Your task to perform on an android device: uninstall "DoorDash - Food Delivery" Image 0: 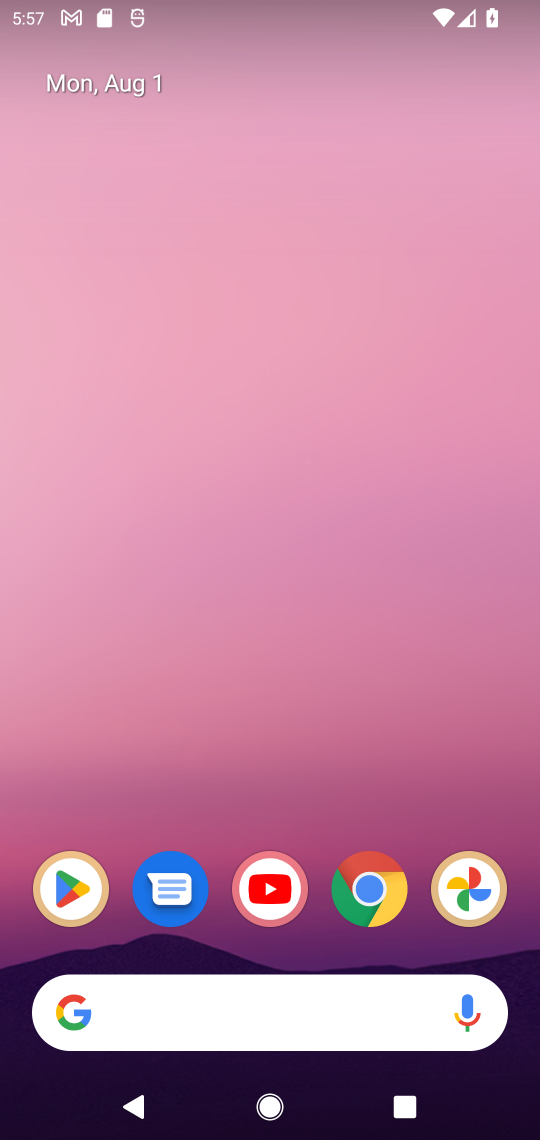
Step 0: click (117, 190)
Your task to perform on an android device: uninstall "DoorDash - Food Delivery" Image 1: 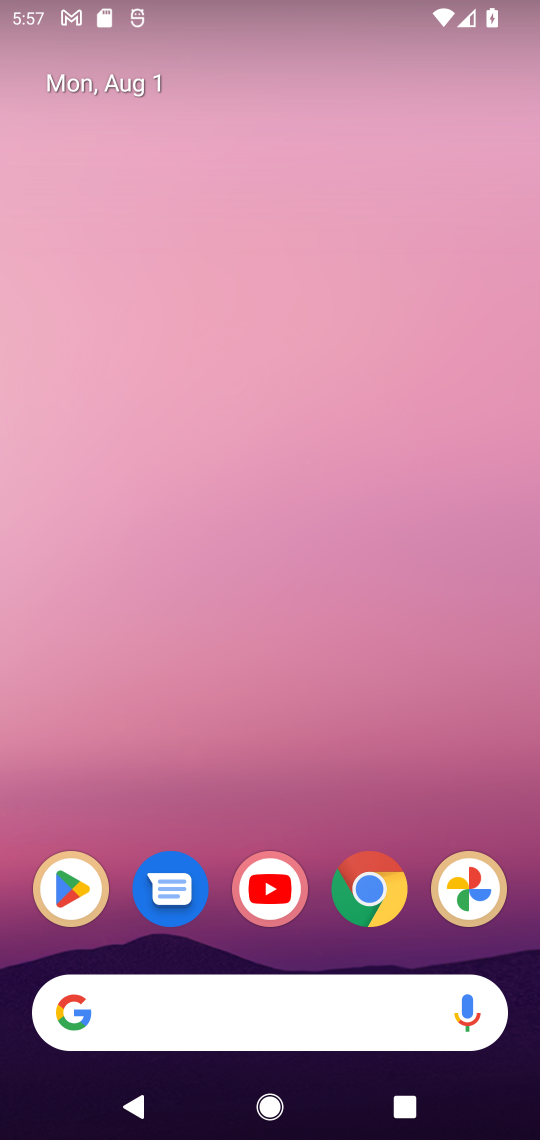
Step 1: click (287, 83)
Your task to perform on an android device: uninstall "DoorDash - Food Delivery" Image 2: 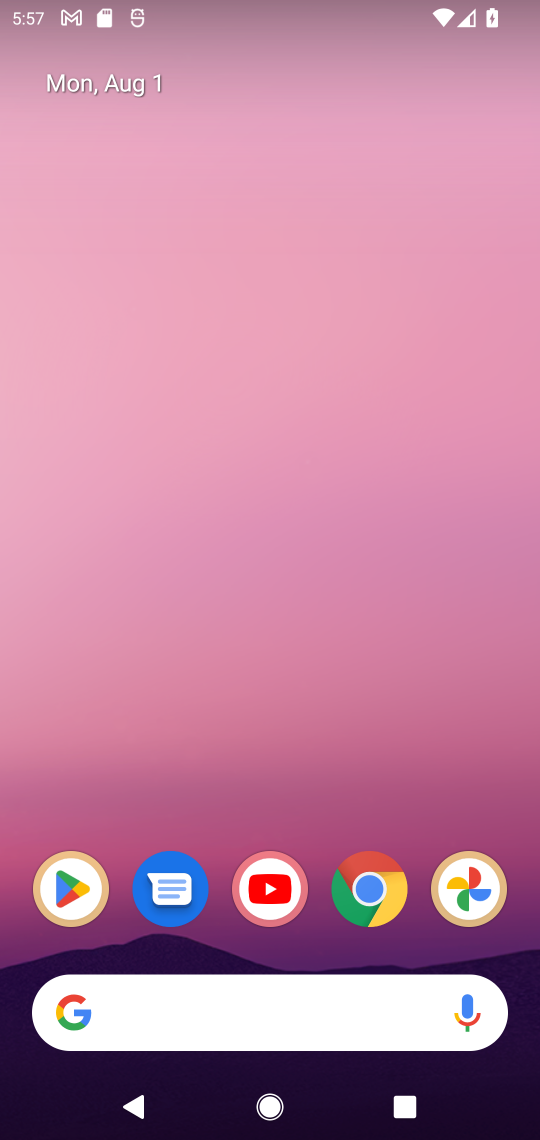
Step 2: drag from (450, 91) to (232, 109)
Your task to perform on an android device: uninstall "DoorDash - Food Delivery" Image 3: 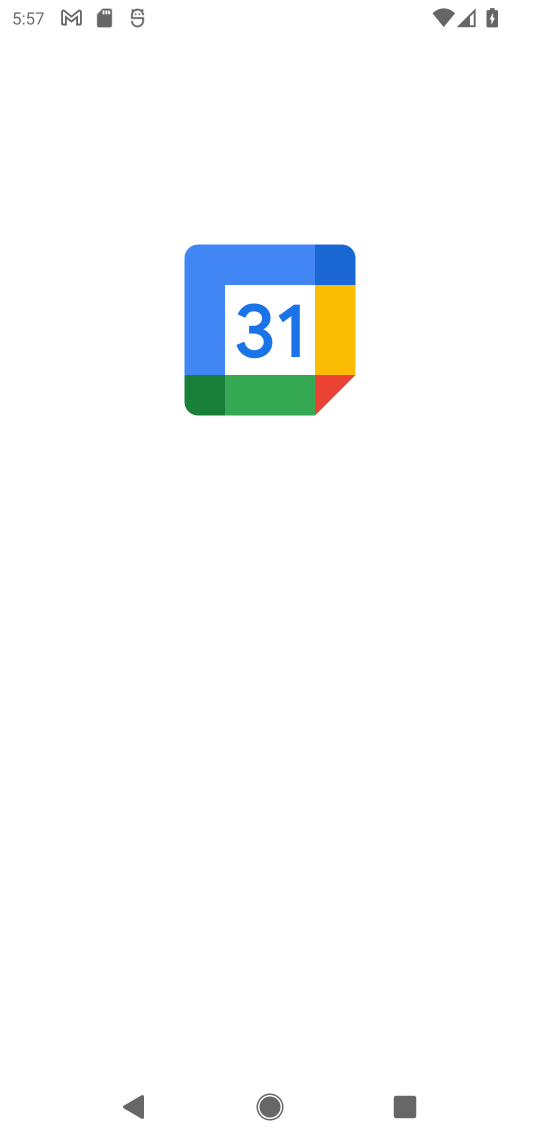
Step 3: drag from (292, 500) to (526, 385)
Your task to perform on an android device: uninstall "DoorDash - Food Delivery" Image 4: 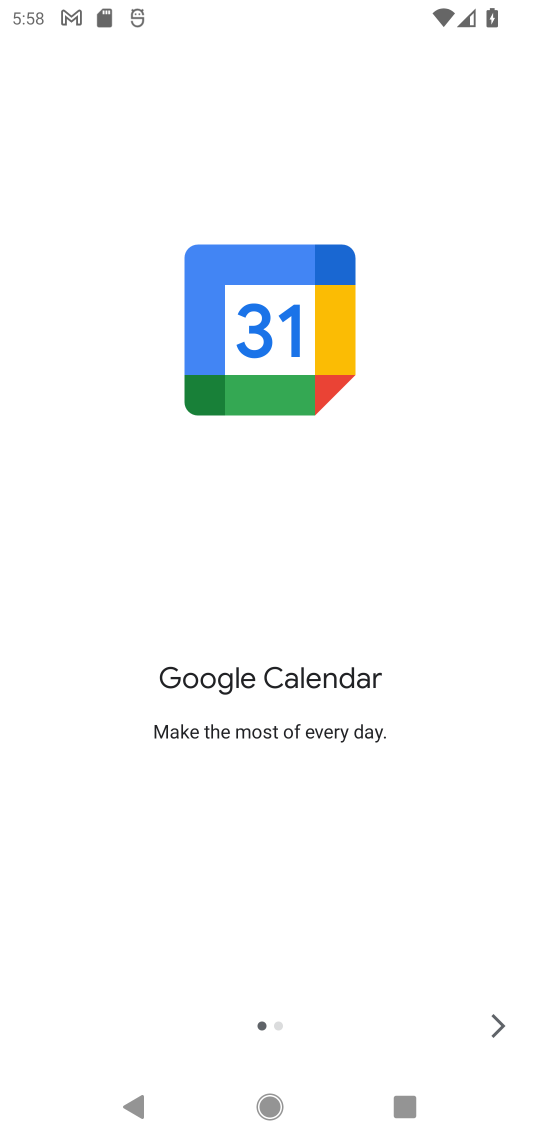
Step 4: press back button
Your task to perform on an android device: uninstall "DoorDash - Food Delivery" Image 5: 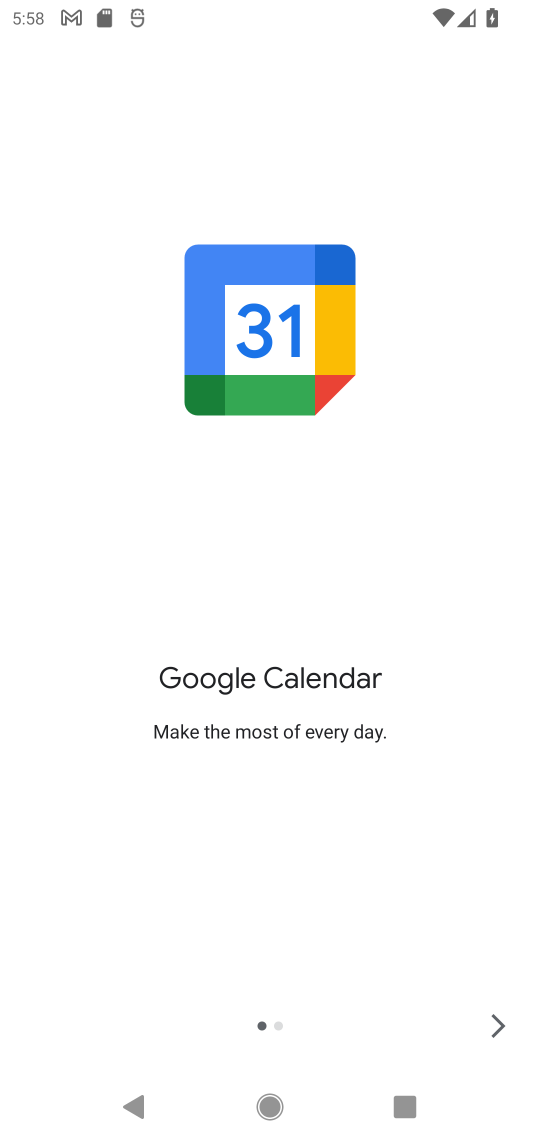
Step 5: press back button
Your task to perform on an android device: uninstall "DoorDash - Food Delivery" Image 6: 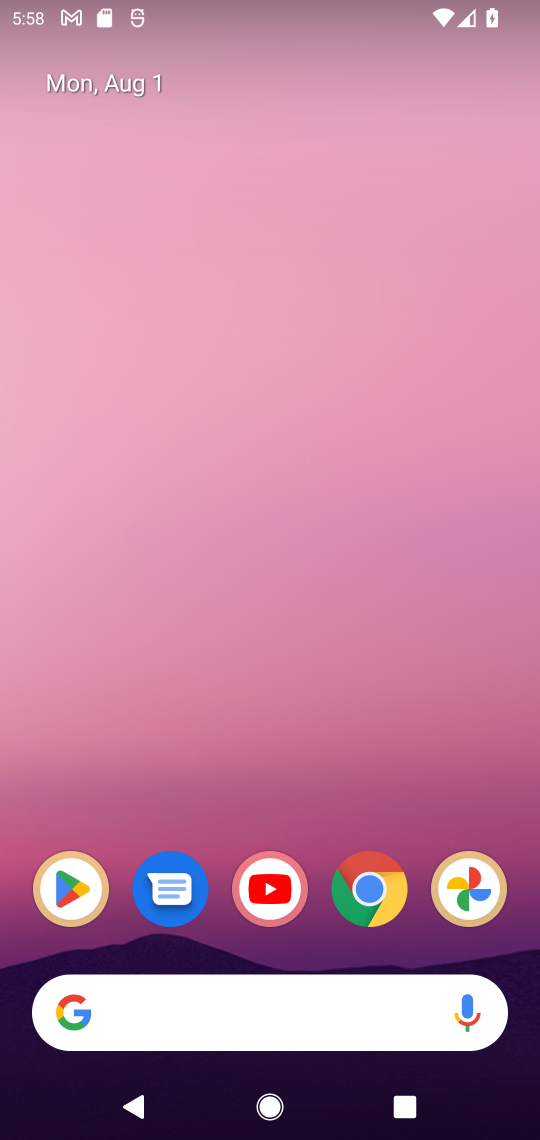
Step 6: click (508, 1026)
Your task to perform on an android device: uninstall "DoorDash - Food Delivery" Image 7: 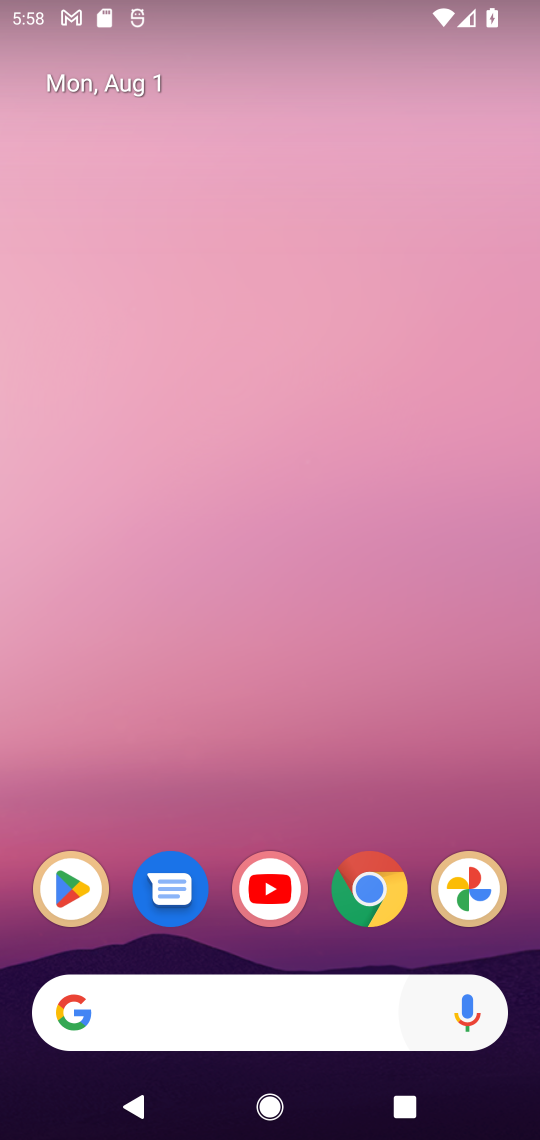
Step 7: click (336, 205)
Your task to perform on an android device: uninstall "DoorDash - Food Delivery" Image 8: 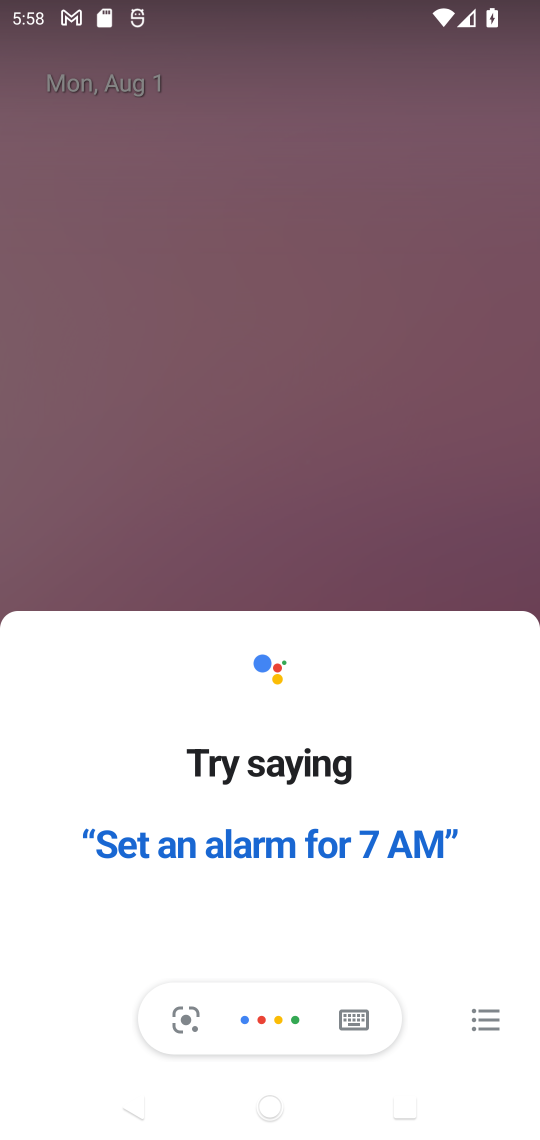
Step 8: drag from (296, 730) to (290, 189)
Your task to perform on an android device: uninstall "DoorDash - Food Delivery" Image 9: 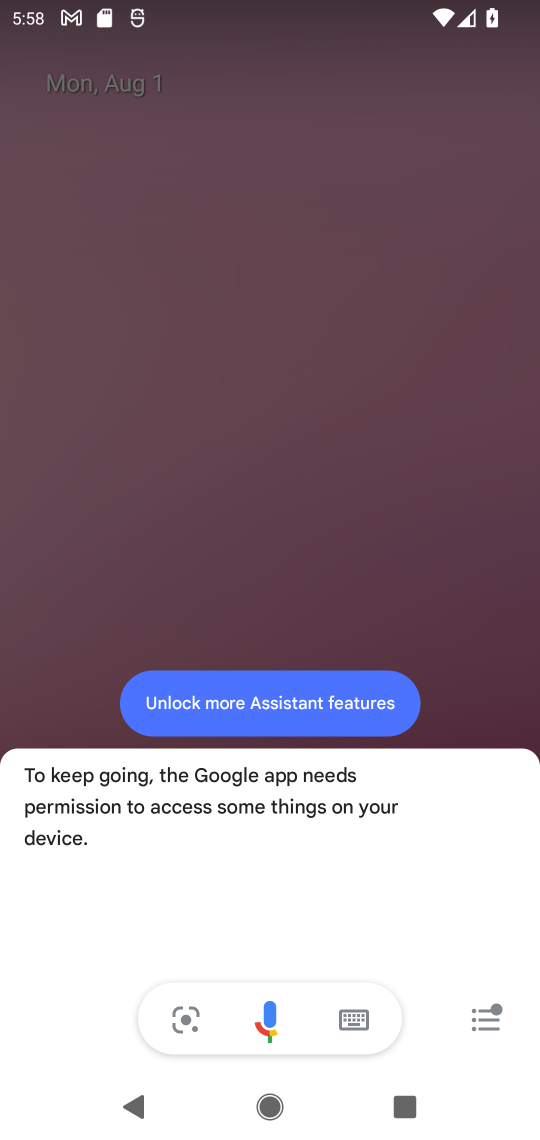
Step 9: drag from (298, 526) to (233, 77)
Your task to perform on an android device: uninstall "DoorDash - Food Delivery" Image 10: 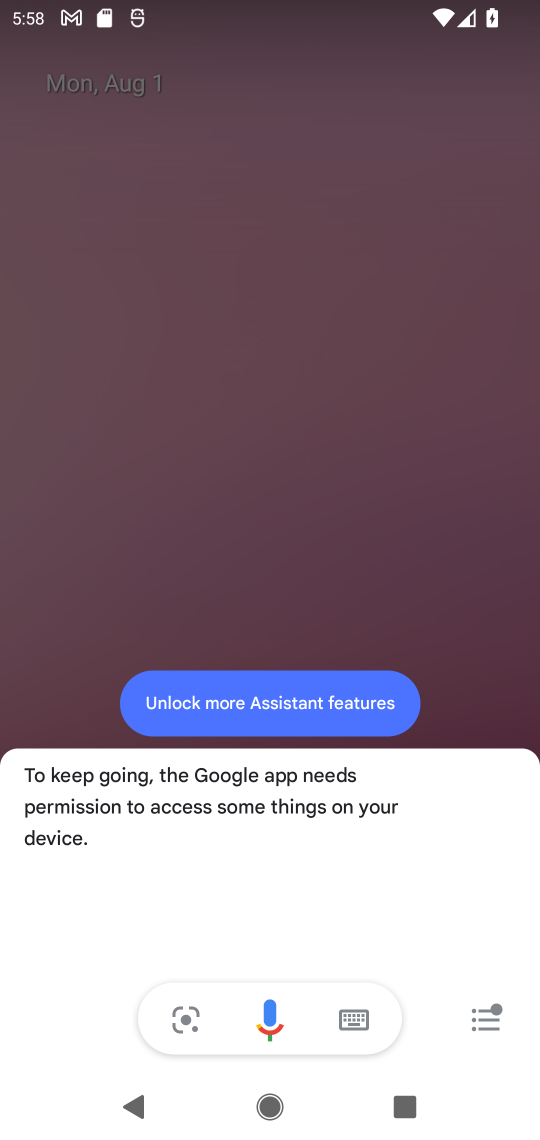
Step 10: drag from (360, 822) to (319, 250)
Your task to perform on an android device: uninstall "DoorDash - Food Delivery" Image 11: 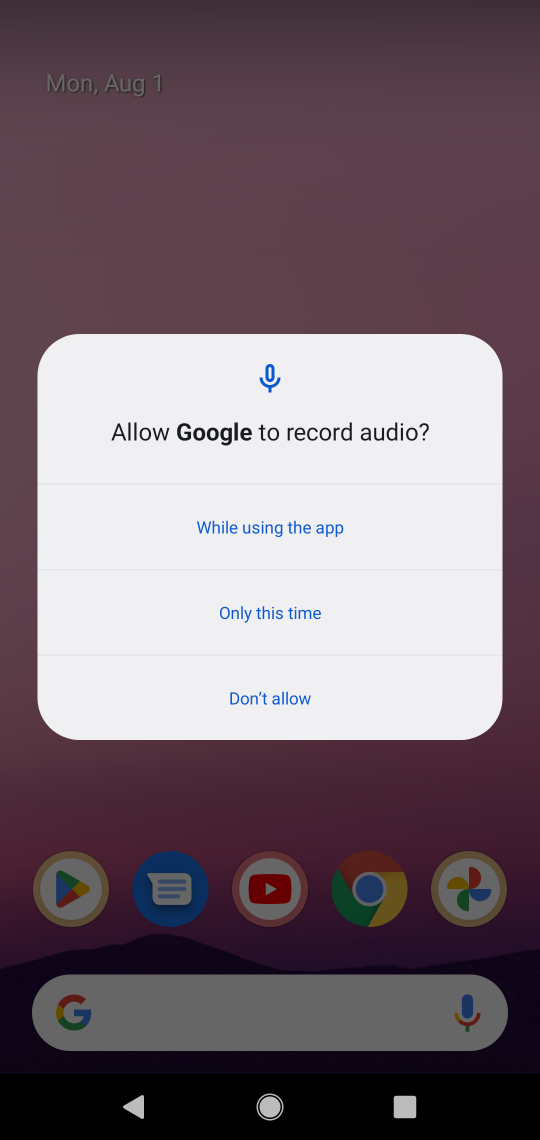
Step 11: drag from (294, 528) to (262, 307)
Your task to perform on an android device: uninstall "DoorDash - Food Delivery" Image 12: 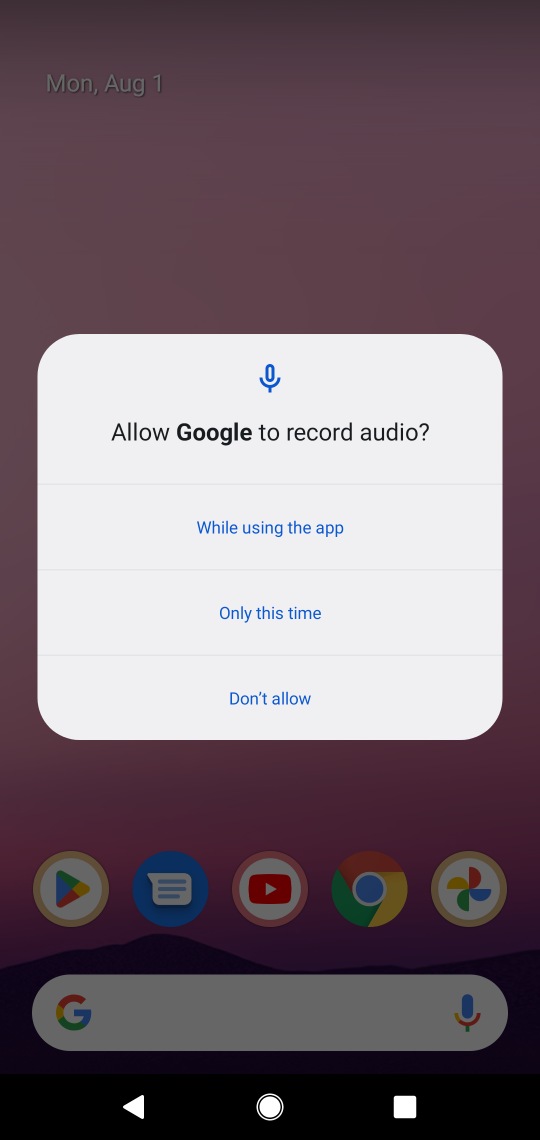
Step 12: drag from (255, 805) to (225, 410)
Your task to perform on an android device: uninstall "DoorDash - Food Delivery" Image 13: 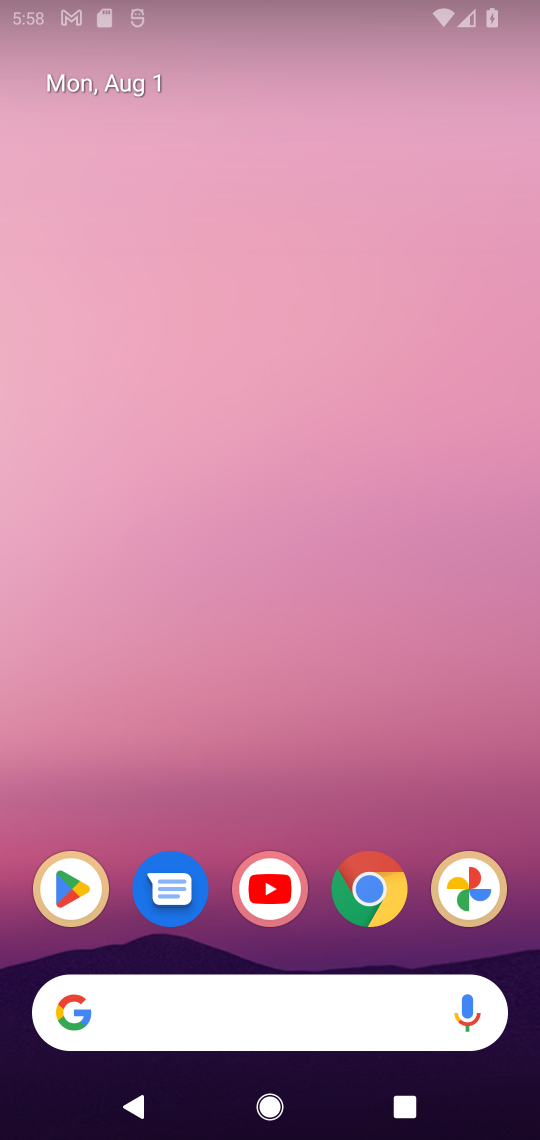
Step 13: click (337, 234)
Your task to perform on an android device: uninstall "DoorDash - Food Delivery" Image 14: 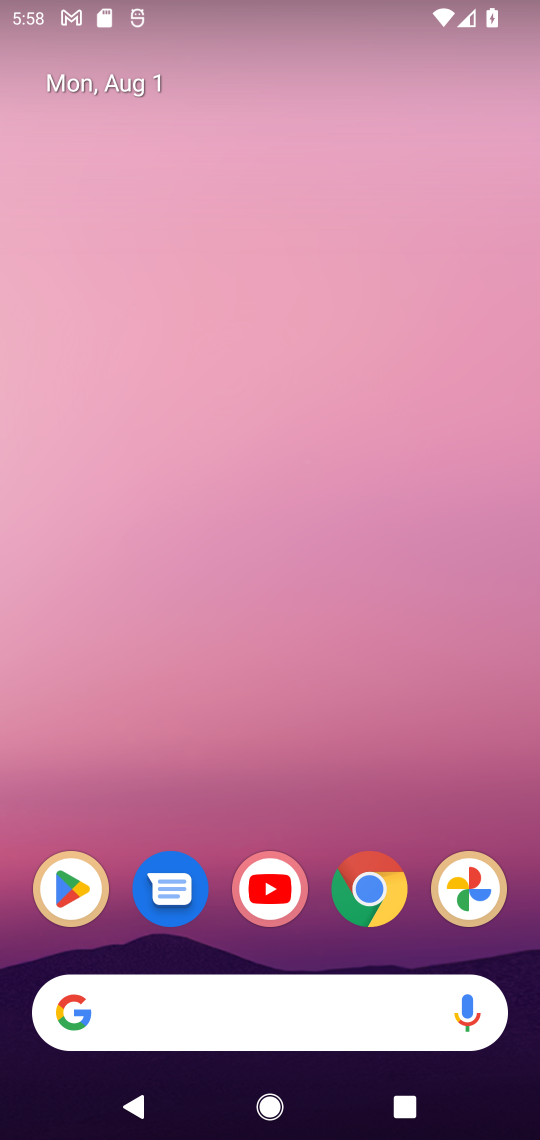
Step 14: drag from (317, 551) to (317, 178)
Your task to perform on an android device: uninstall "DoorDash - Food Delivery" Image 15: 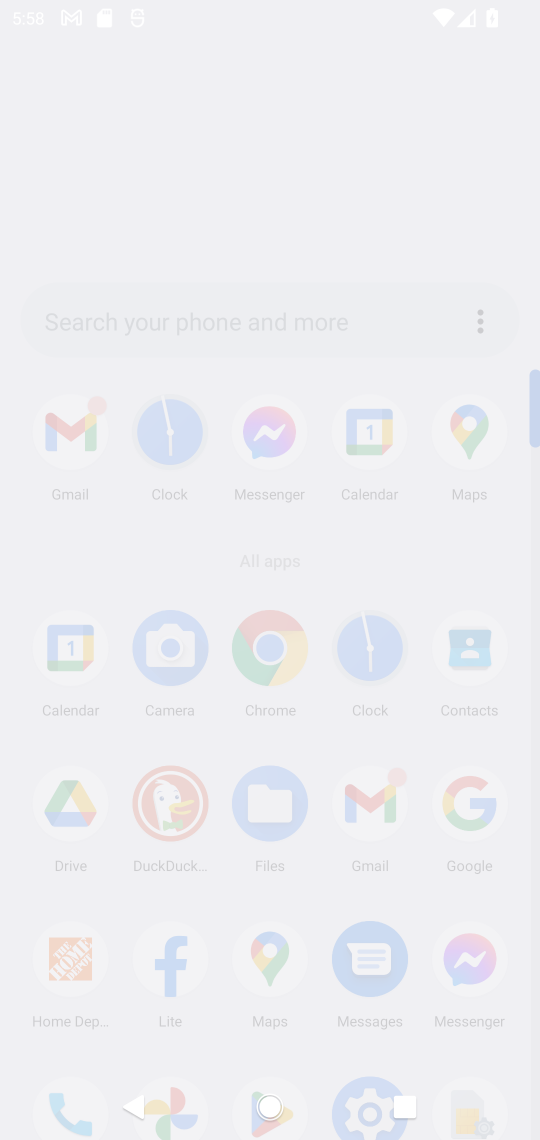
Step 15: click (331, 228)
Your task to perform on an android device: uninstall "DoorDash - Food Delivery" Image 16: 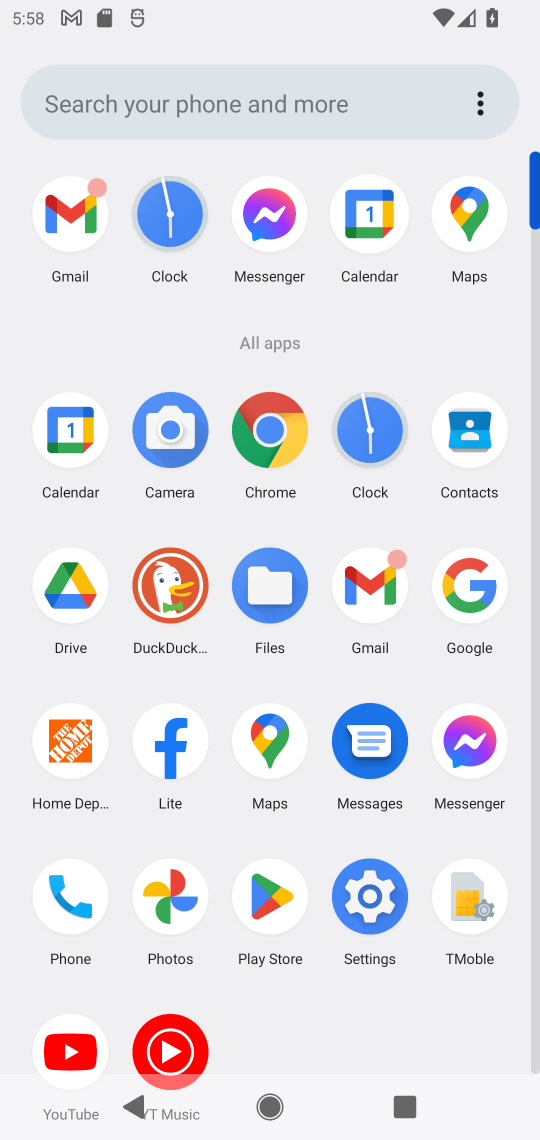
Step 16: drag from (393, 583) to (393, 375)
Your task to perform on an android device: uninstall "DoorDash - Food Delivery" Image 17: 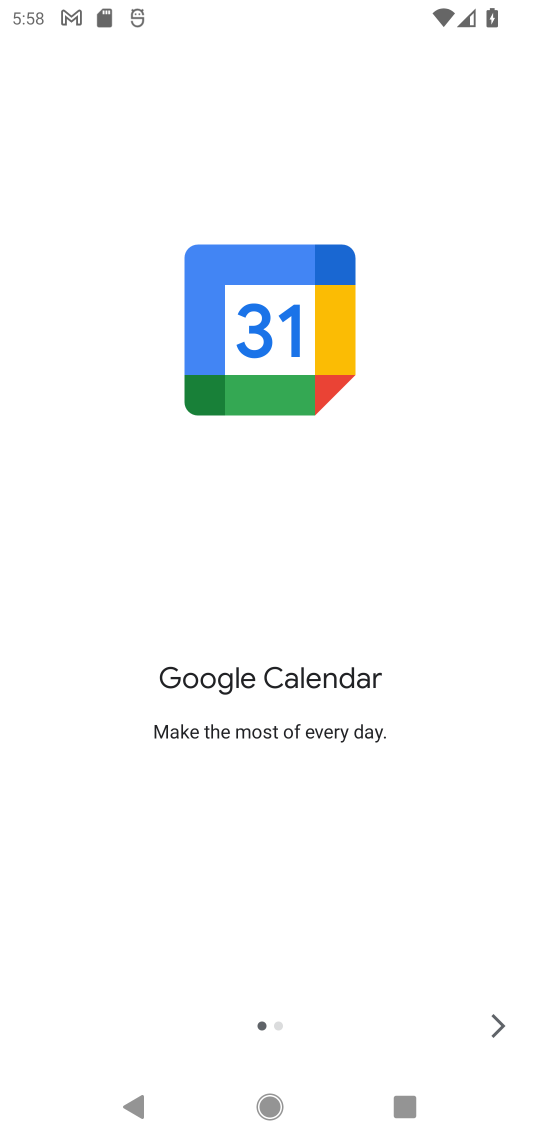
Step 17: press back button
Your task to perform on an android device: uninstall "DoorDash - Food Delivery" Image 18: 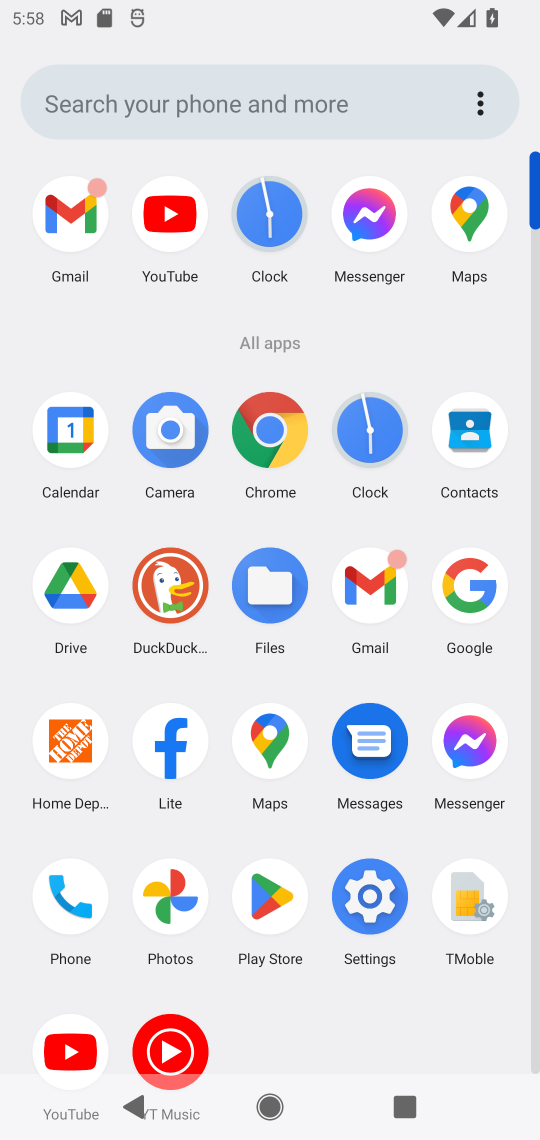
Step 18: press back button
Your task to perform on an android device: uninstall "DoorDash - Food Delivery" Image 19: 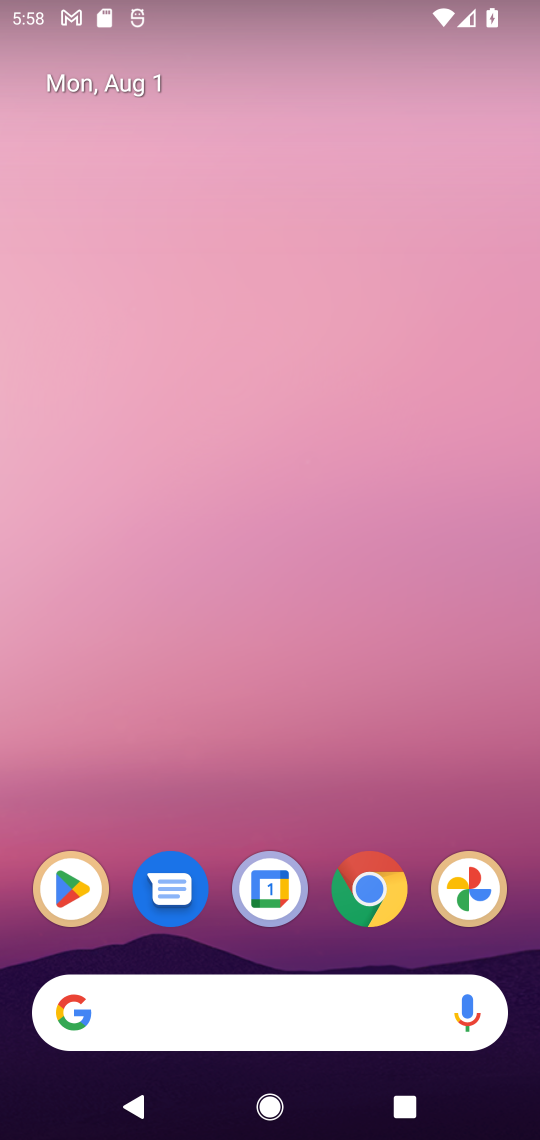
Step 19: drag from (399, 934) to (378, 376)
Your task to perform on an android device: uninstall "DoorDash - Food Delivery" Image 20: 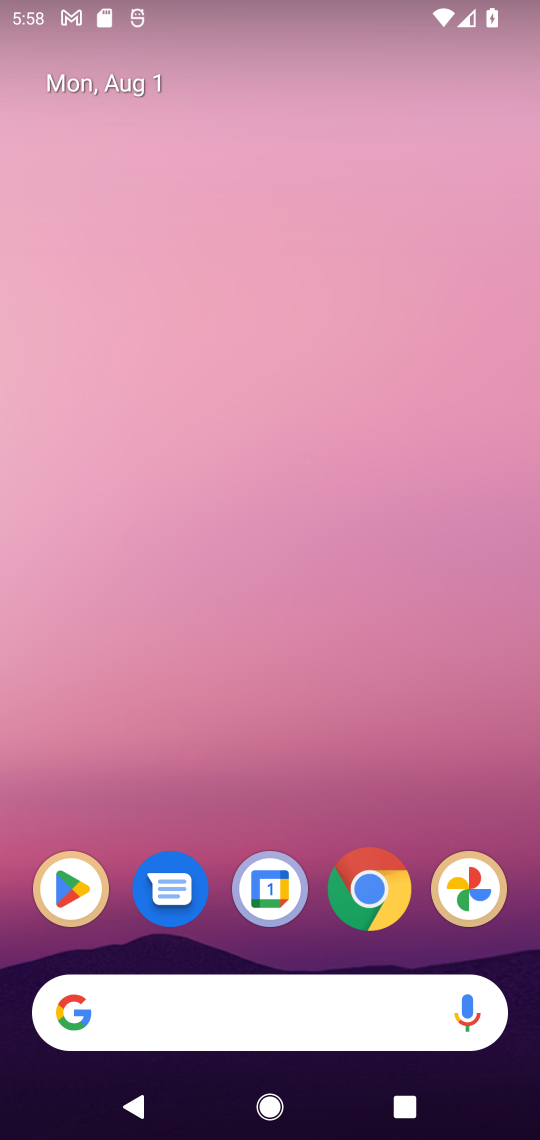
Step 20: drag from (363, 665) to (324, 373)
Your task to perform on an android device: uninstall "DoorDash - Food Delivery" Image 21: 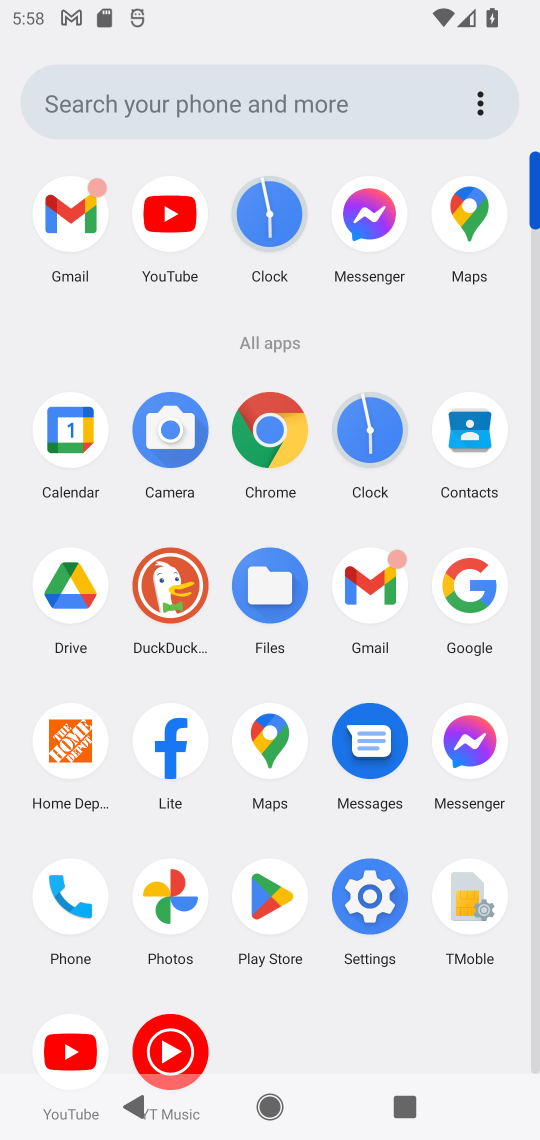
Step 21: drag from (384, 816) to (365, 382)
Your task to perform on an android device: uninstall "DoorDash - Food Delivery" Image 22: 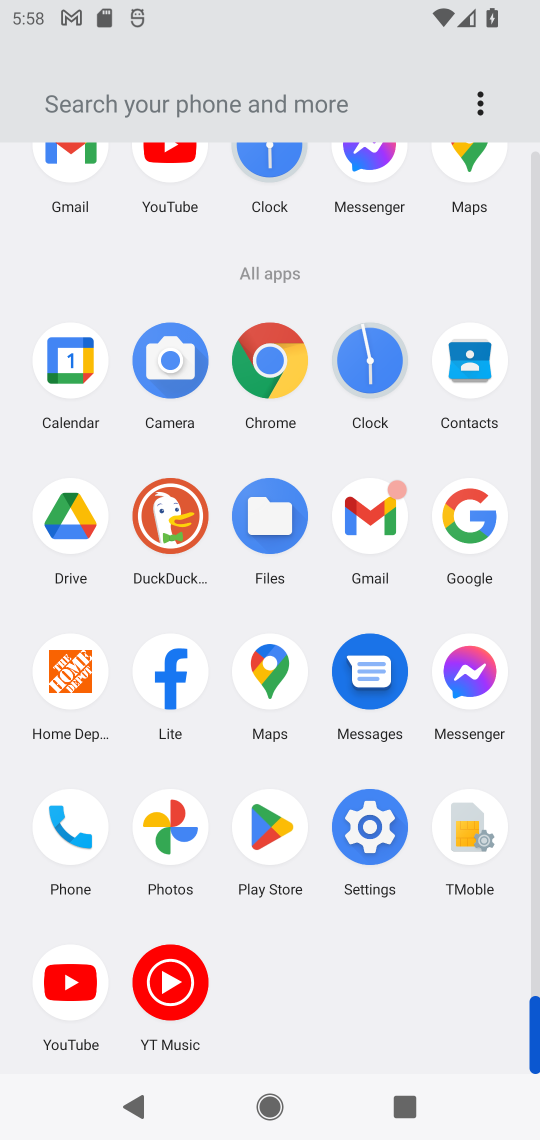
Step 22: click (279, 829)
Your task to perform on an android device: uninstall "DoorDash - Food Delivery" Image 23: 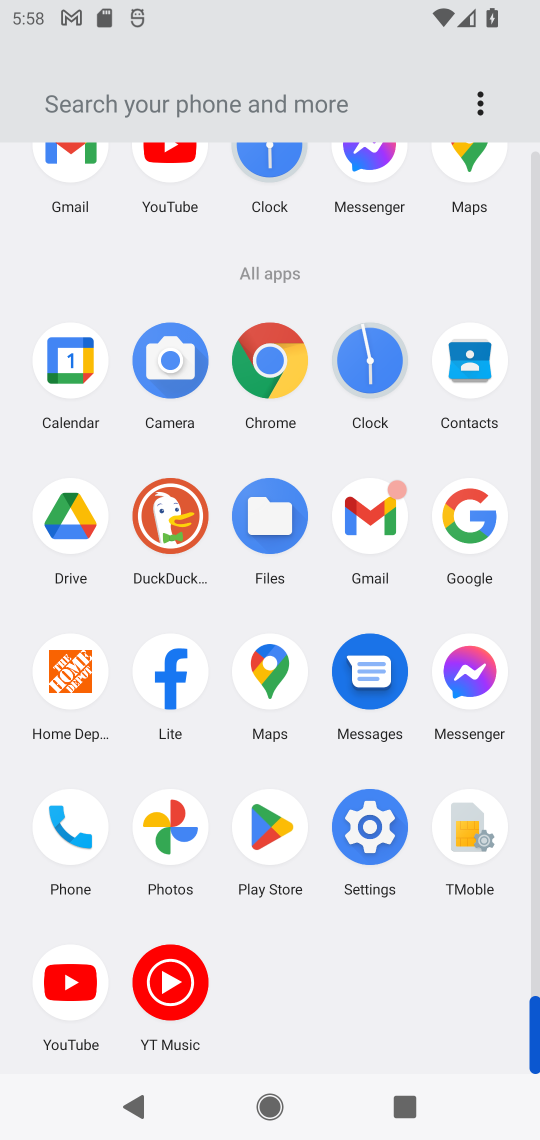
Step 23: click (279, 829)
Your task to perform on an android device: uninstall "DoorDash - Food Delivery" Image 24: 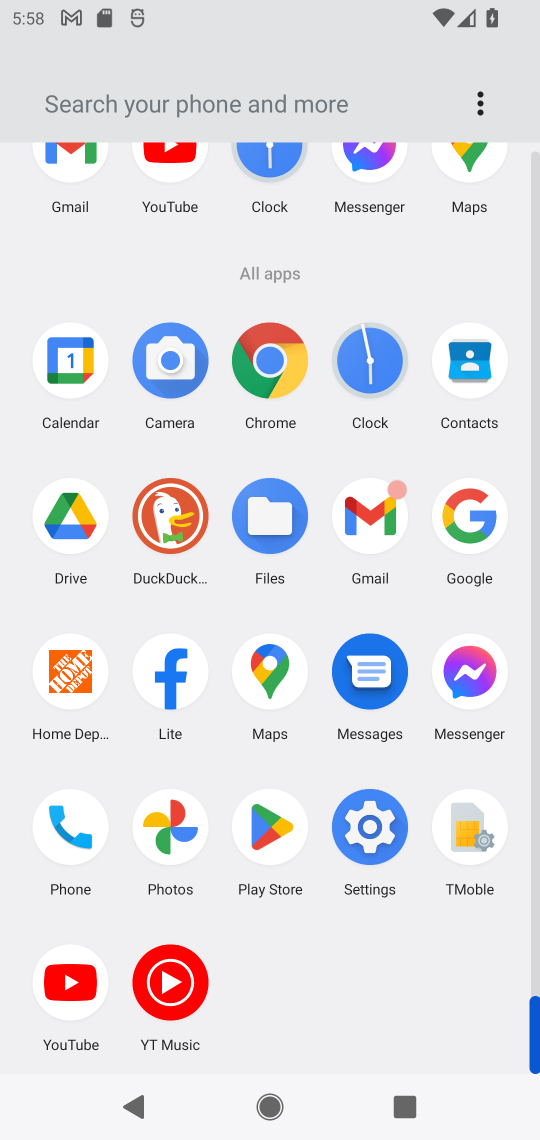
Step 24: click (279, 821)
Your task to perform on an android device: uninstall "DoorDash - Food Delivery" Image 25: 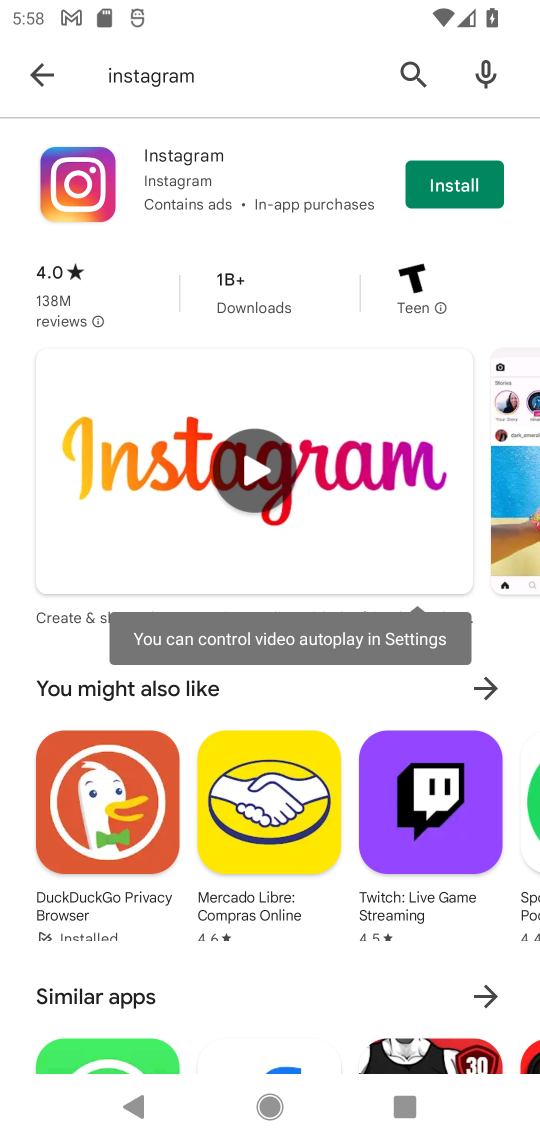
Step 25: click (37, 60)
Your task to perform on an android device: uninstall "DoorDash - Food Delivery" Image 26: 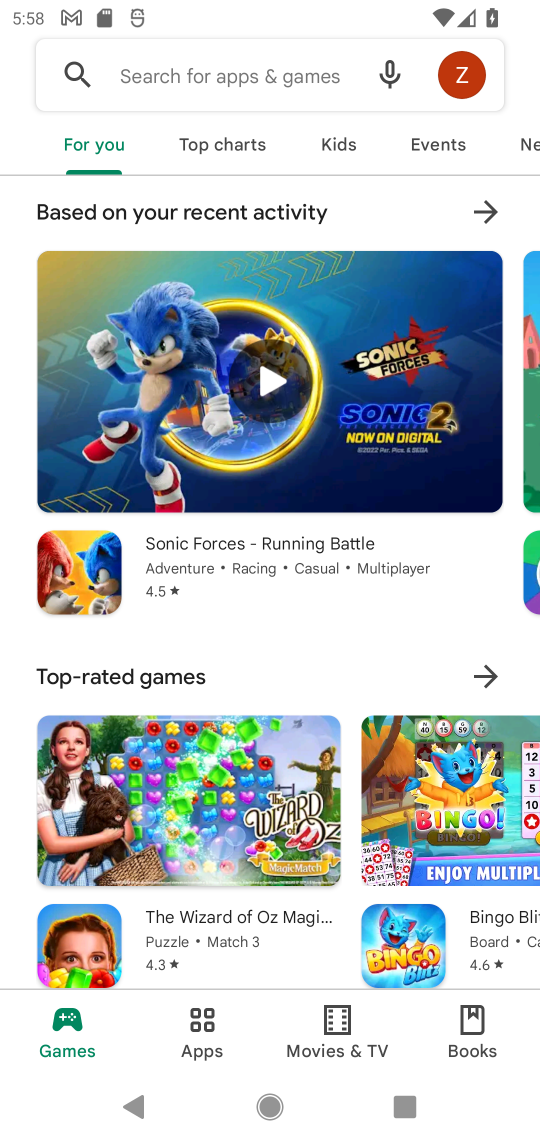
Step 26: click (132, 82)
Your task to perform on an android device: uninstall "DoorDash - Food Delivery" Image 27: 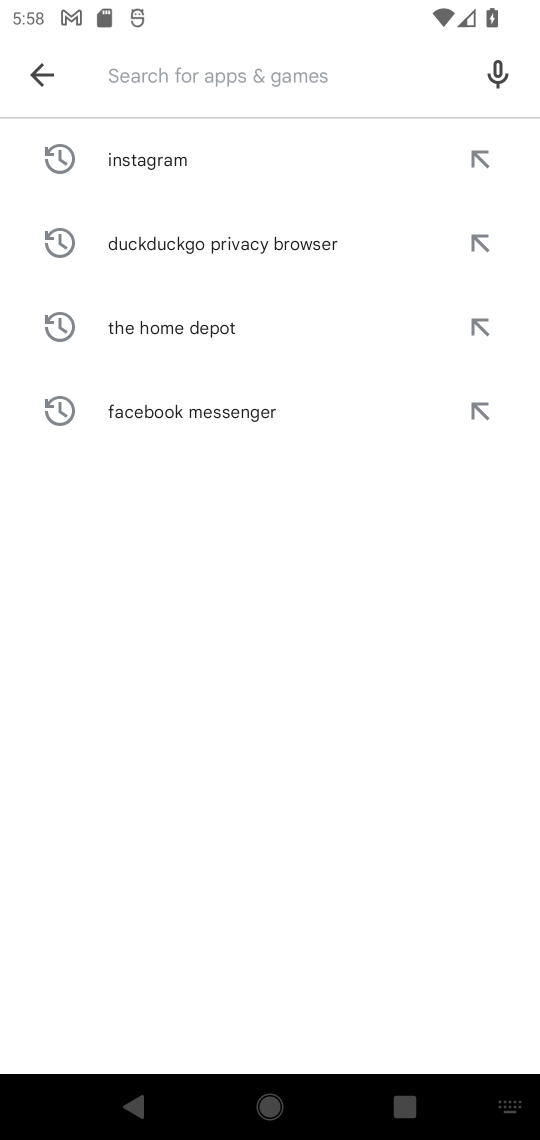
Step 27: type "DoorDash -Food Delivery"
Your task to perform on an android device: uninstall "DoorDash - Food Delivery" Image 28: 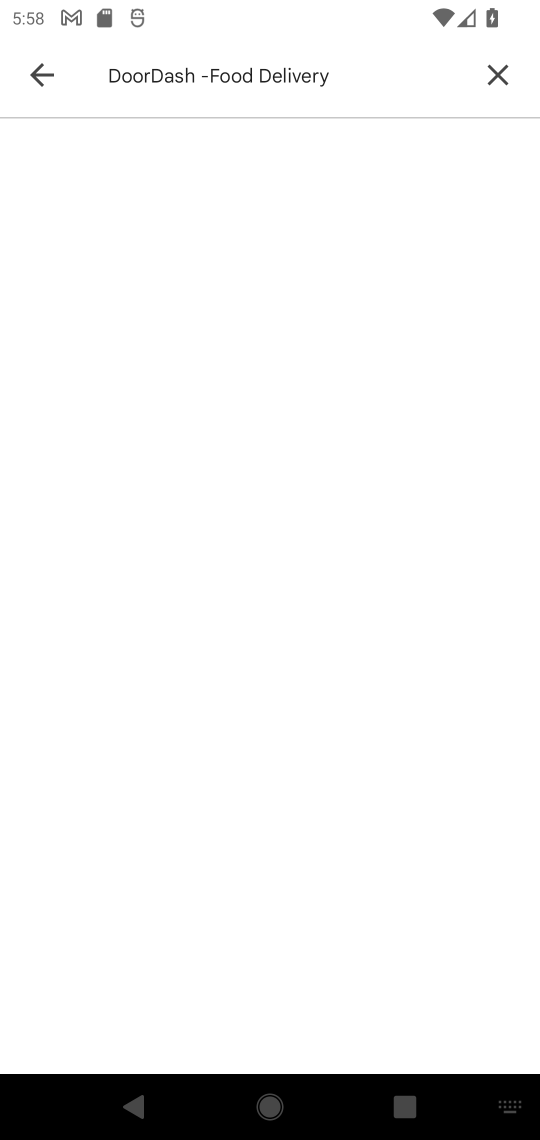
Step 28: click (308, 89)
Your task to perform on an android device: uninstall "DoorDash - Food Delivery" Image 29: 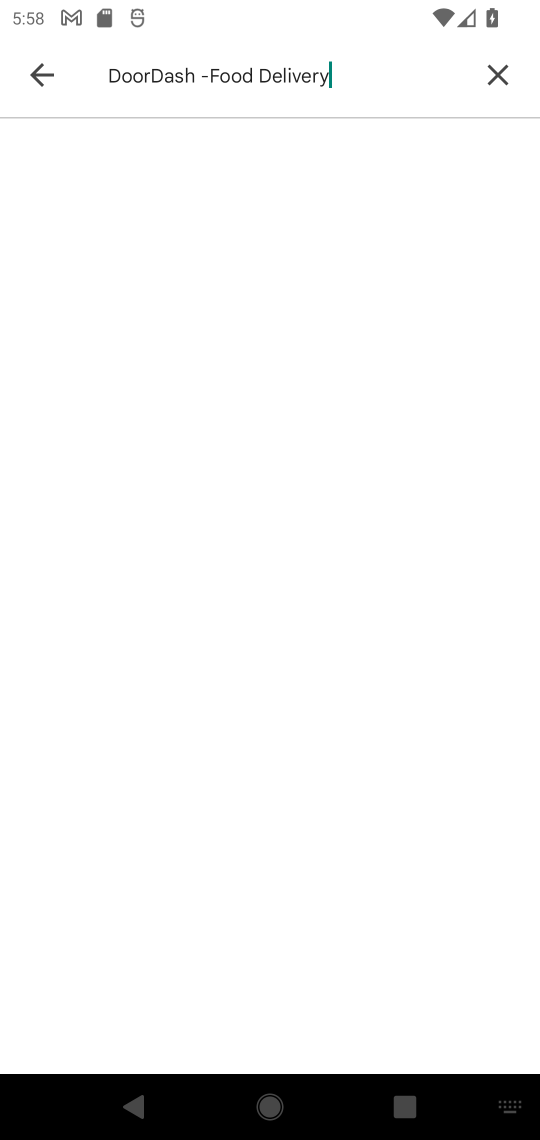
Step 29: click (305, 84)
Your task to perform on an android device: uninstall "DoorDash - Food Delivery" Image 30: 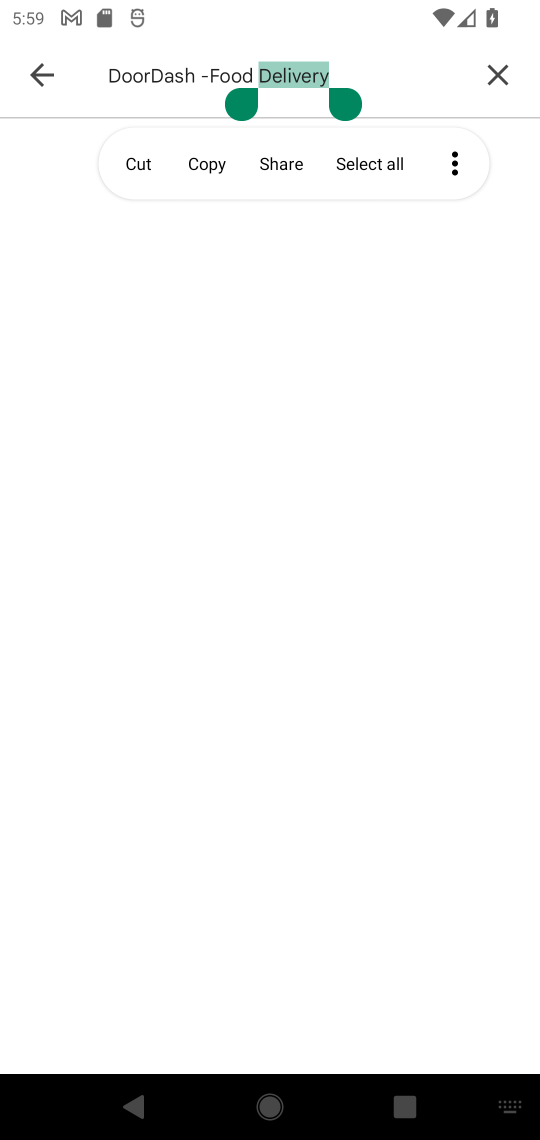
Step 30: click (305, 86)
Your task to perform on an android device: uninstall "DoorDash - Food Delivery" Image 31: 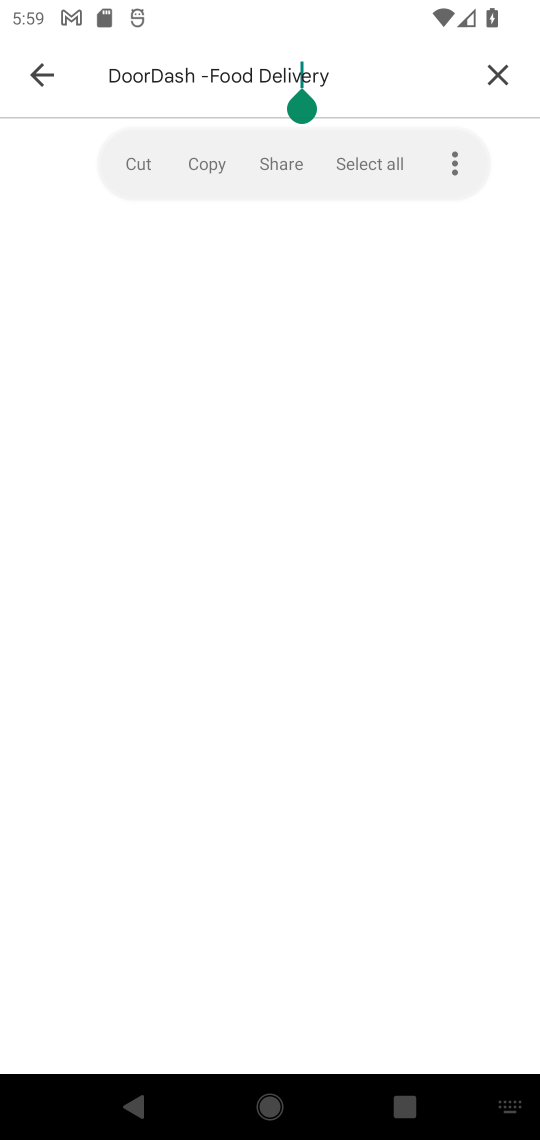
Step 31: click (296, 312)
Your task to perform on an android device: uninstall "DoorDash - Food Delivery" Image 32: 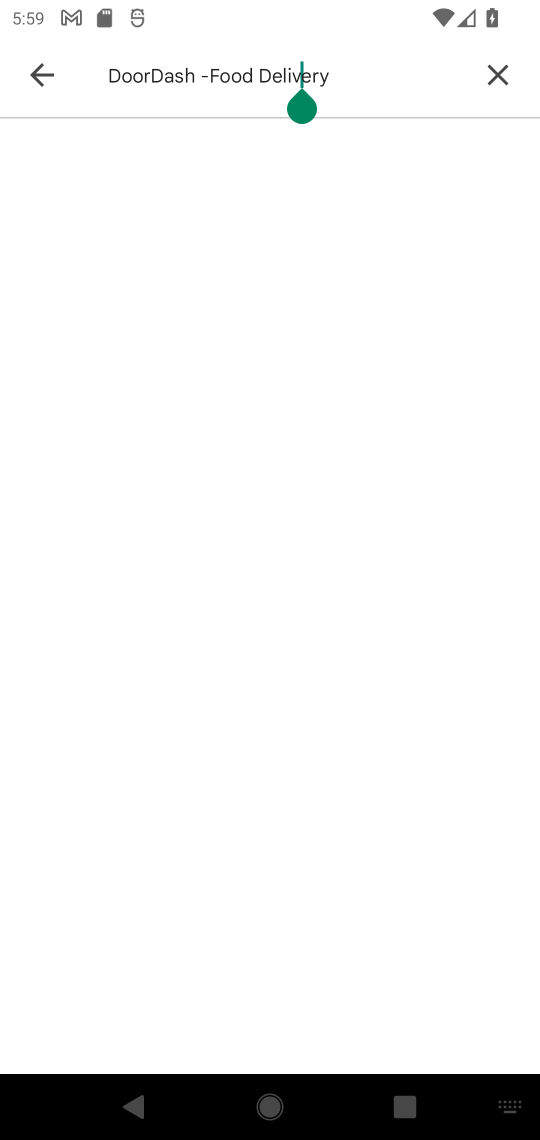
Step 32: click (491, 69)
Your task to perform on an android device: uninstall "DoorDash - Food Delivery" Image 33: 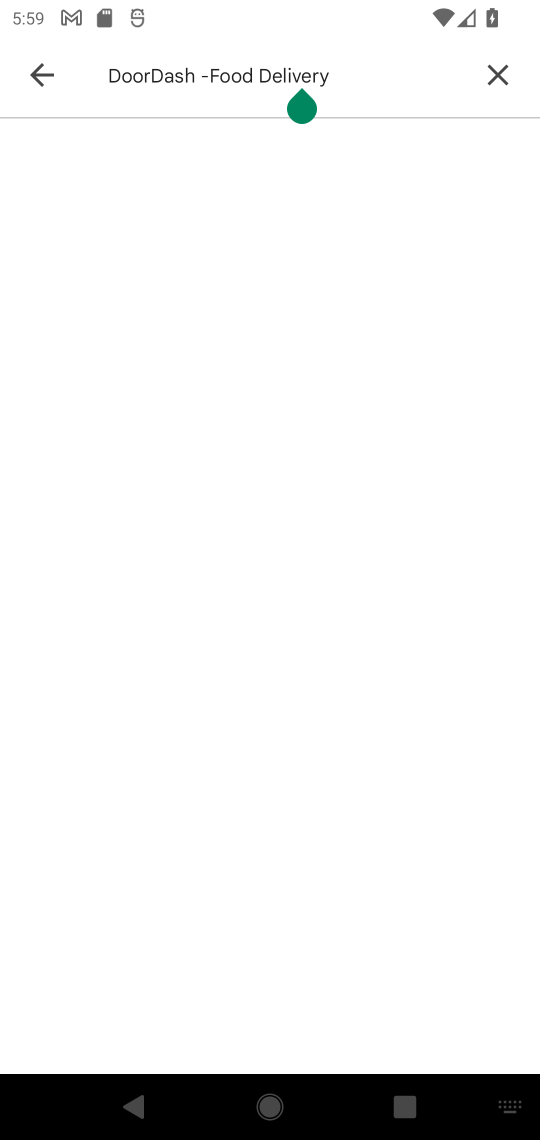
Step 33: click (491, 69)
Your task to perform on an android device: uninstall "DoorDash - Food Delivery" Image 34: 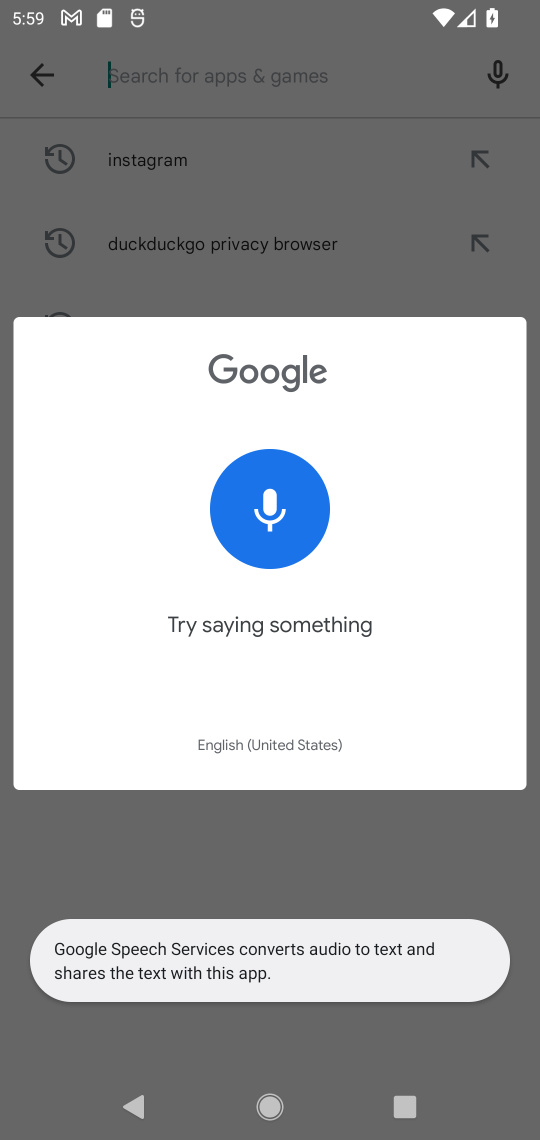
Step 34: click (347, 185)
Your task to perform on an android device: uninstall "DoorDash - Food Delivery" Image 35: 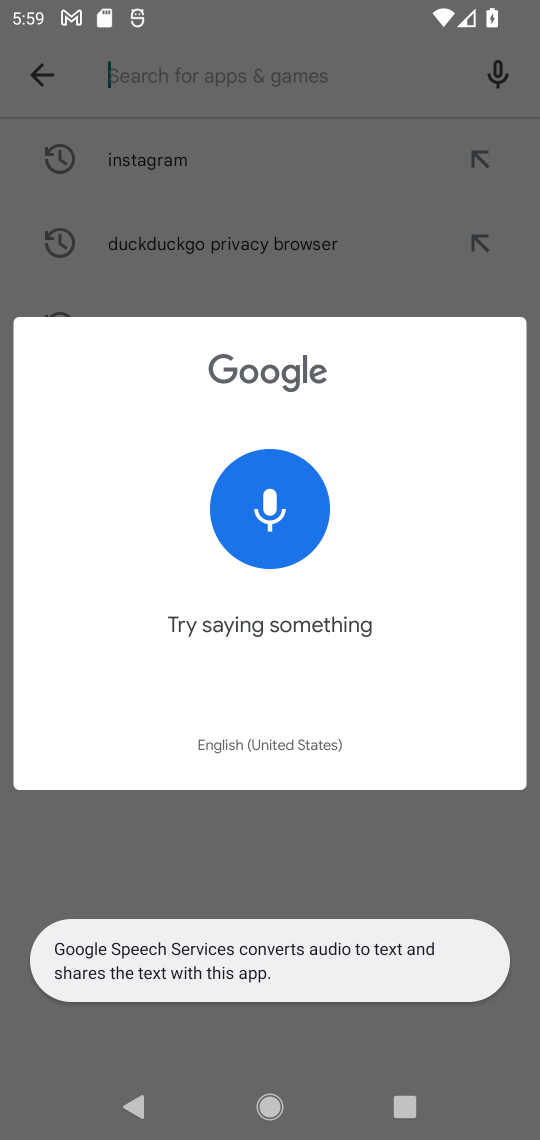
Step 35: click (347, 184)
Your task to perform on an android device: uninstall "DoorDash - Food Delivery" Image 36: 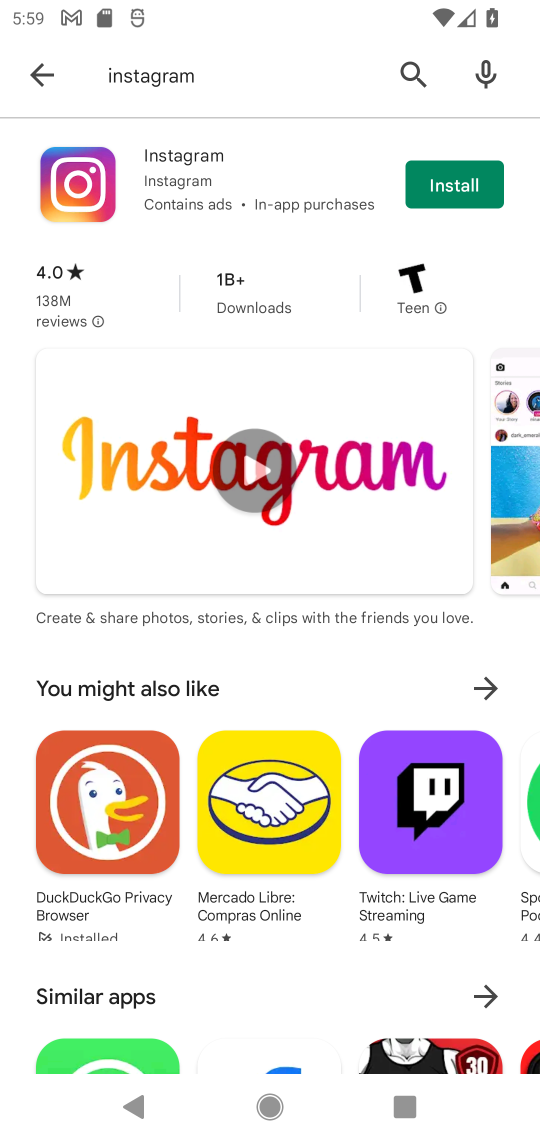
Step 36: click (38, 69)
Your task to perform on an android device: uninstall "DoorDash - Food Delivery" Image 37: 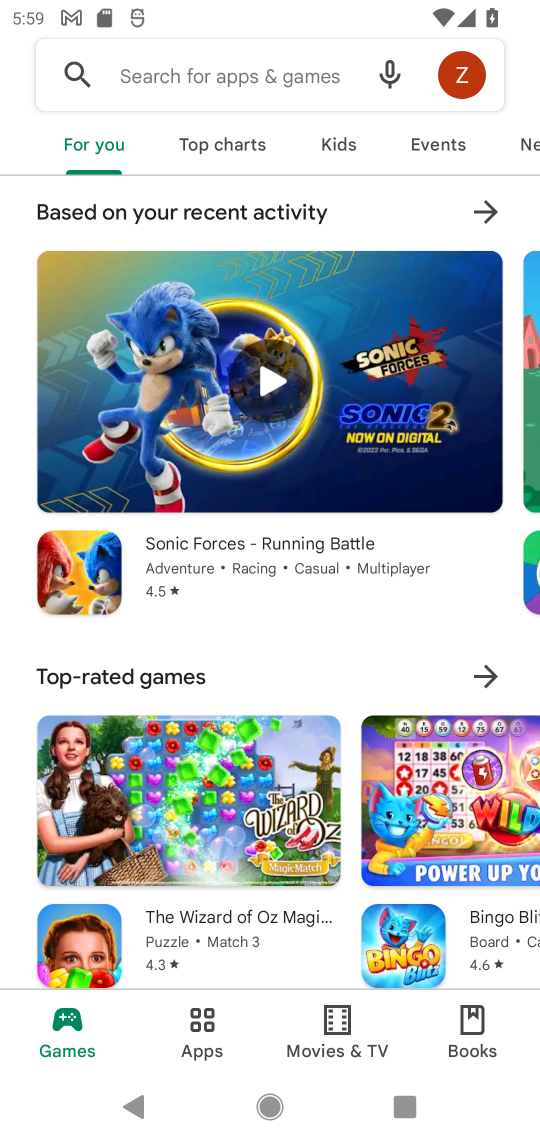
Step 37: click (141, 59)
Your task to perform on an android device: uninstall "DoorDash - Food Delivery" Image 38: 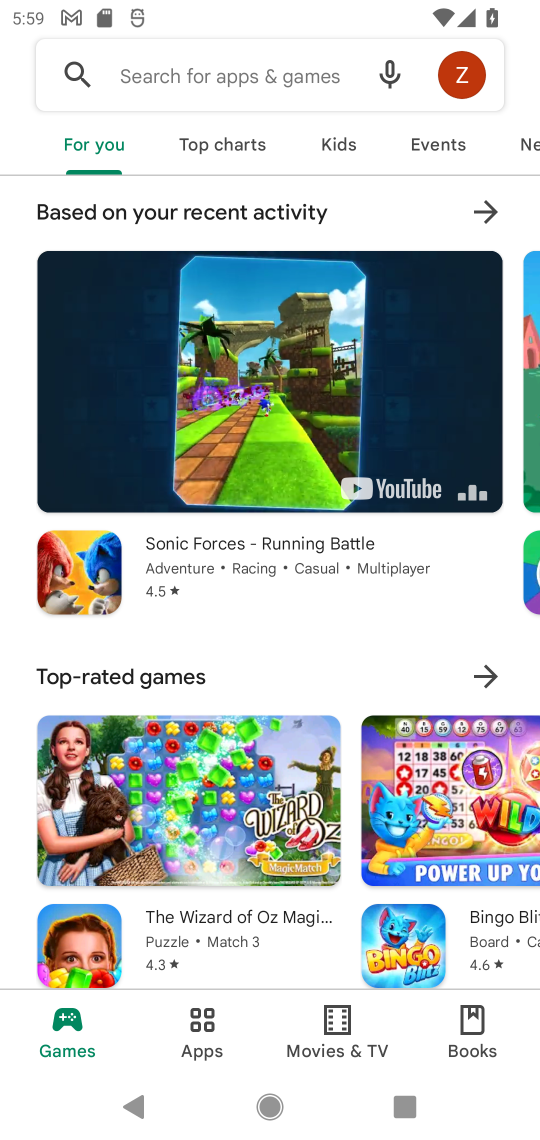
Step 38: click (137, 62)
Your task to perform on an android device: uninstall "DoorDash - Food Delivery" Image 39: 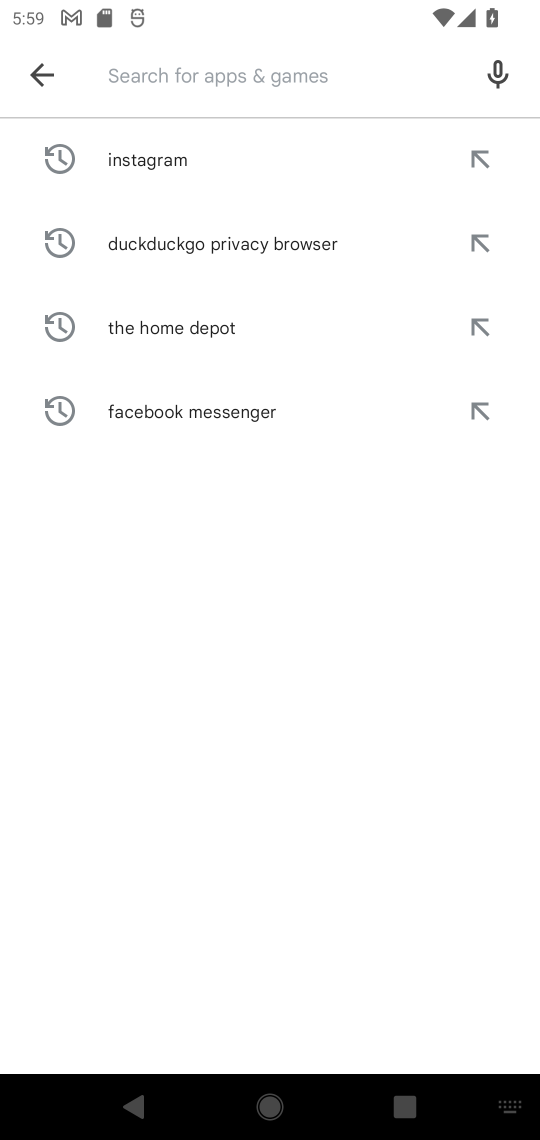
Step 39: type "DoorDash - Food Delivery""
Your task to perform on an android device: uninstall "DoorDash - Food Delivery" Image 40: 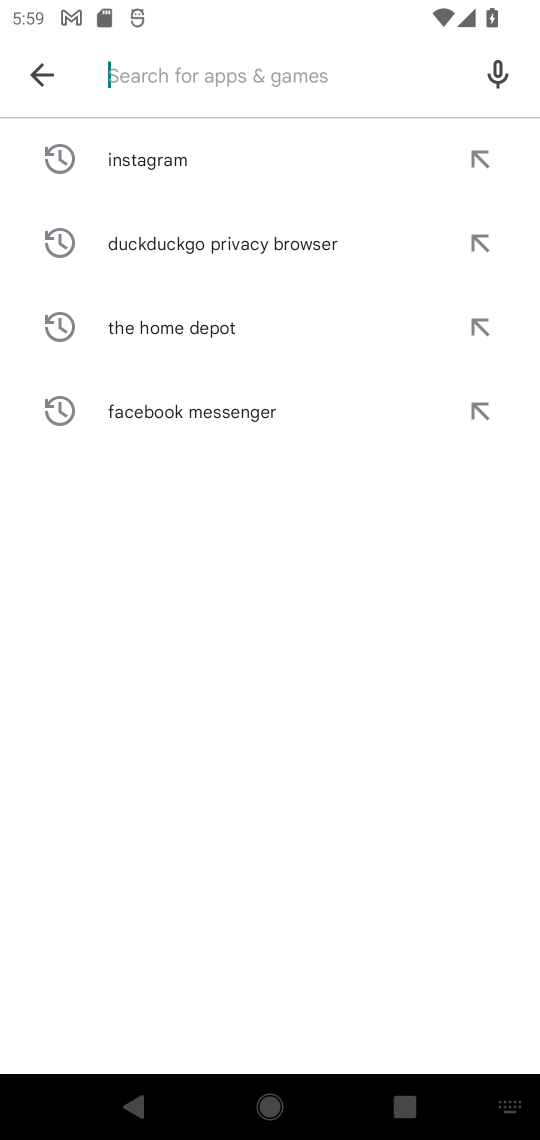
Step 40: type "DoorDash - Food Delivery""
Your task to perform on an android device: uninstall "DoorDash - Food Delivery" Image 41: 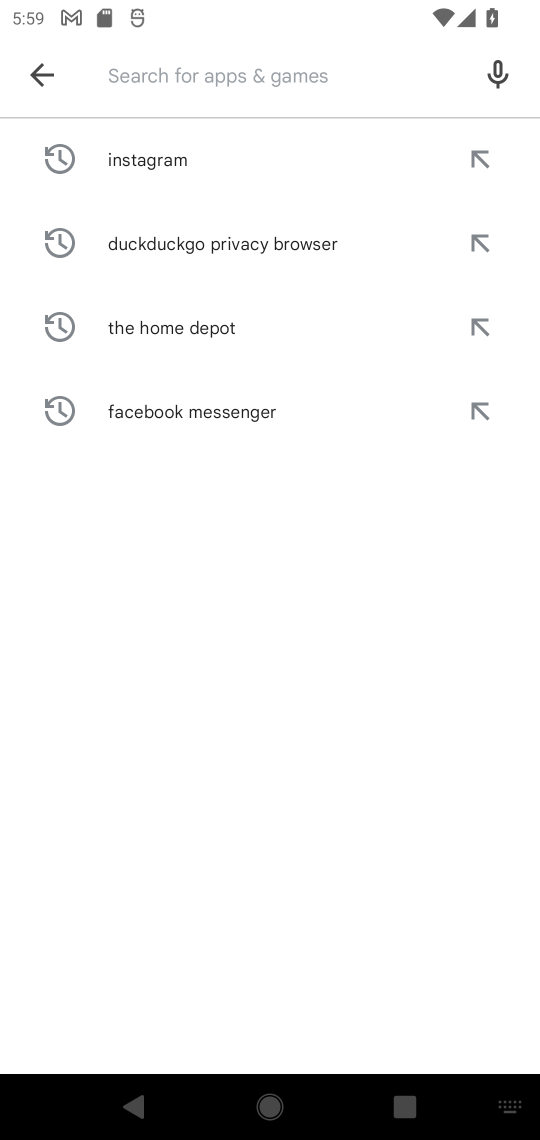
Step 41: click (102, 75)
Your task to perform on an android device: uninstall "DoorDash - Food Delivery" Image 42: 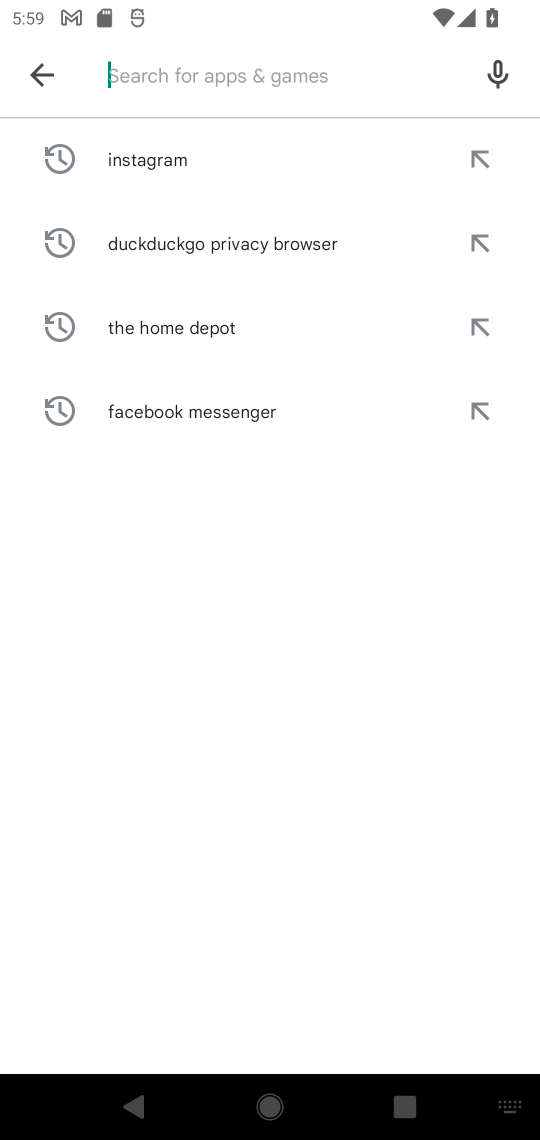
Step 42: click (102, 75)
Your task to perform on an android device: uninstall "DoorDash - Food Delivery" Image 43: 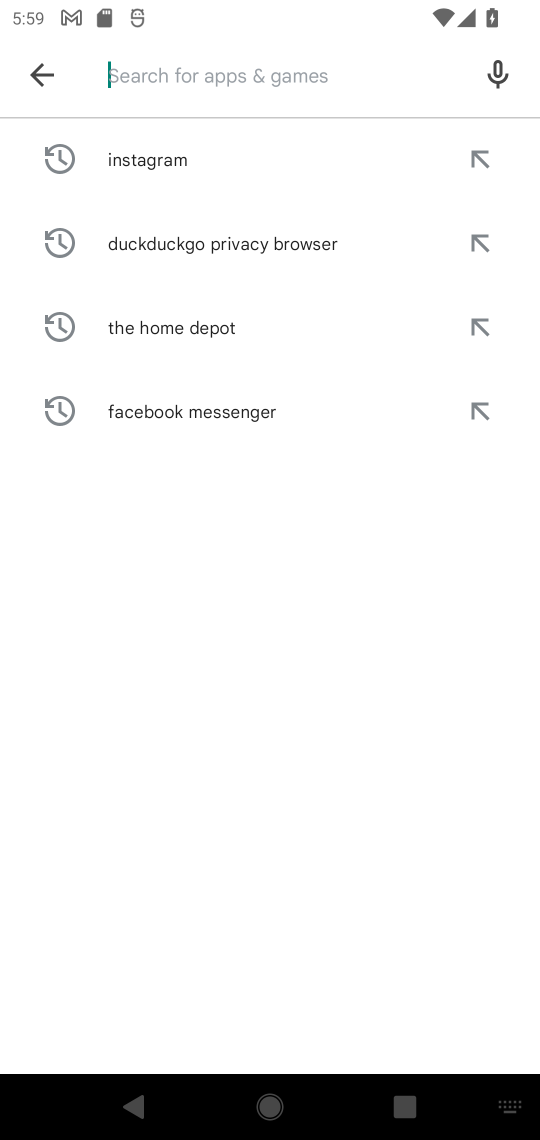
Step 43: drag from (111, 70) to (177, 103)
Your task to perform on an android device: uninstall "DoorDash - Food Delivery" Image 44: 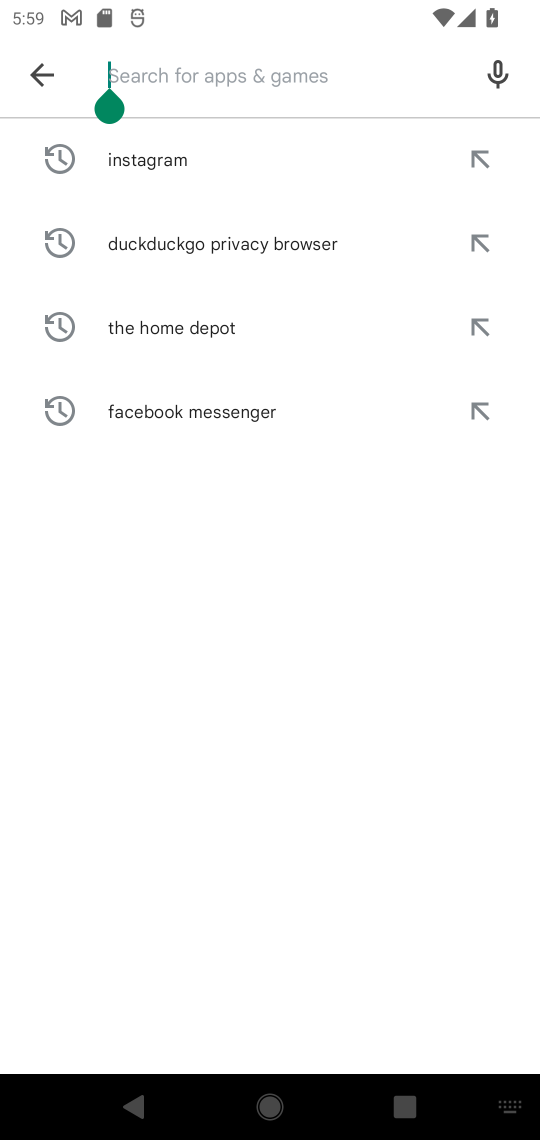
Step 44: click (274, 59)
Your task to perform on an android device: uninstall "DoorDash - Food Delivery" Image 45: 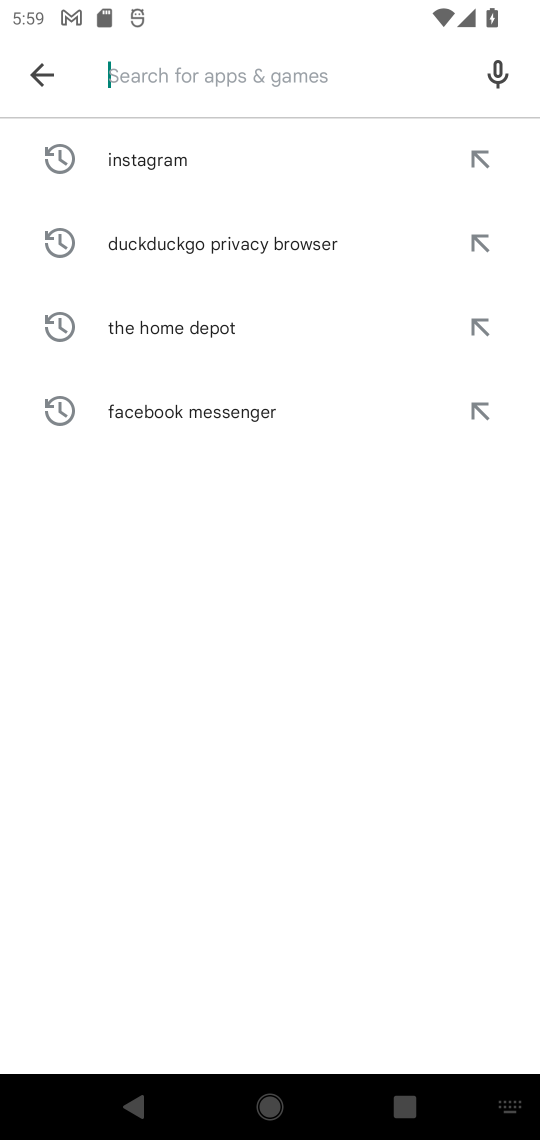
Step 45: type "DoorDash"
Your task to perform on an android device: uninstall "DoorDash - Food Delivery" Image 46: 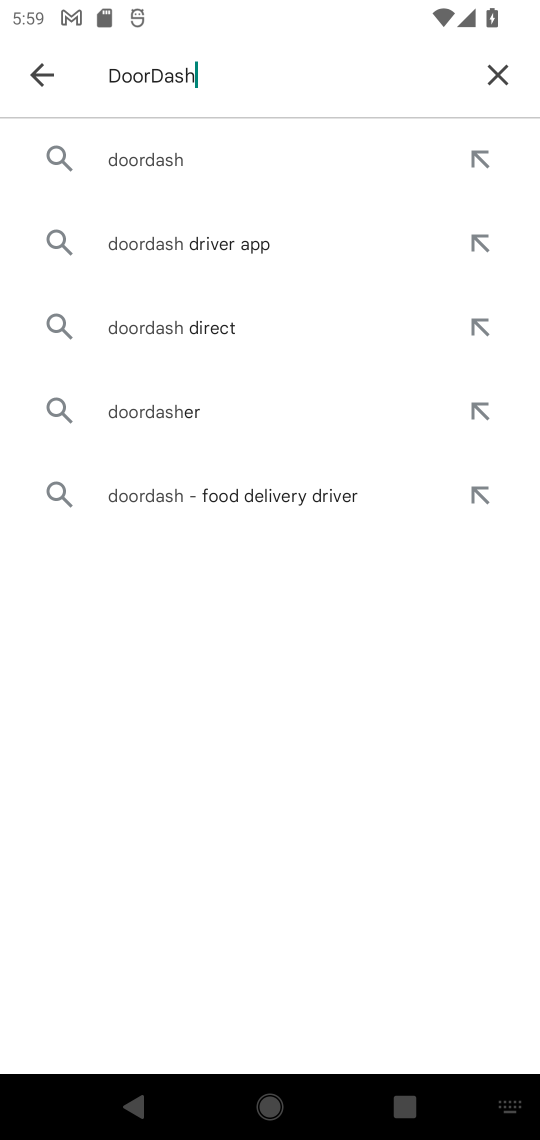
Step 46: click (148, 164)
Your task to perform on an android device: uninstall "DoorDash - Food Delivery" Image 47: 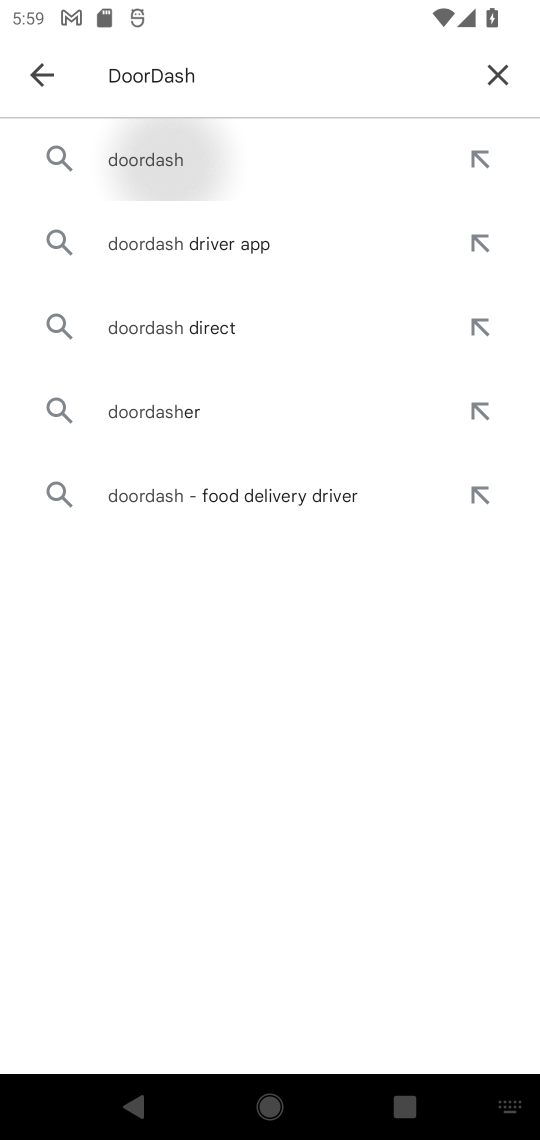
Step 47: click (148, 164)
Your task to perform on an android device: uninstall "DoorDash - Food Delivery" Image 48: 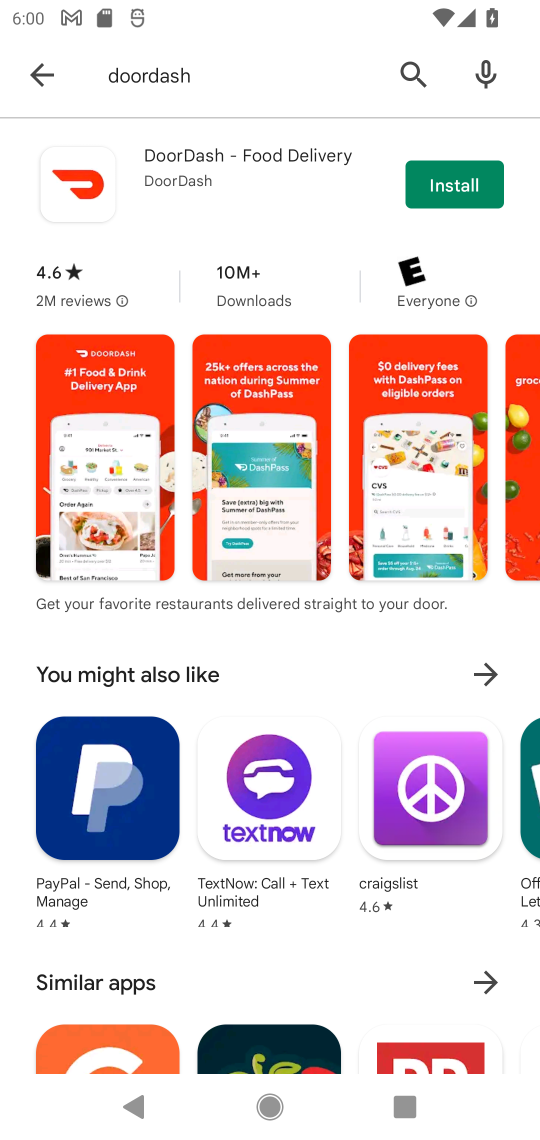
Step 48: task complete